Your task to perform on an android device: toggle javascript in the chrome app Image 0: 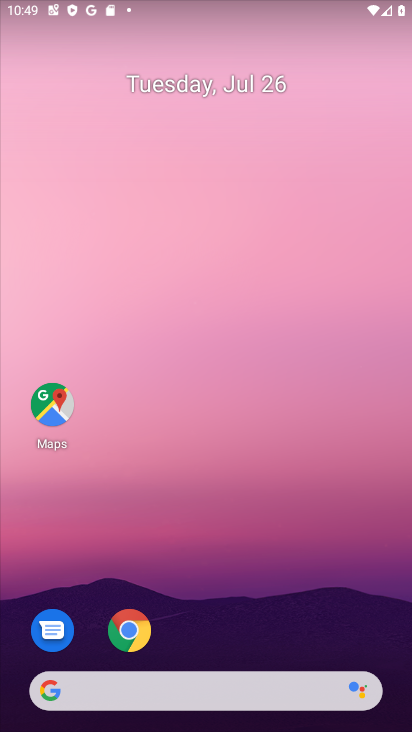
Step 0: click (128, 646)
Your task to perform on an android device: toggle javascript in the chrome app Image 1: 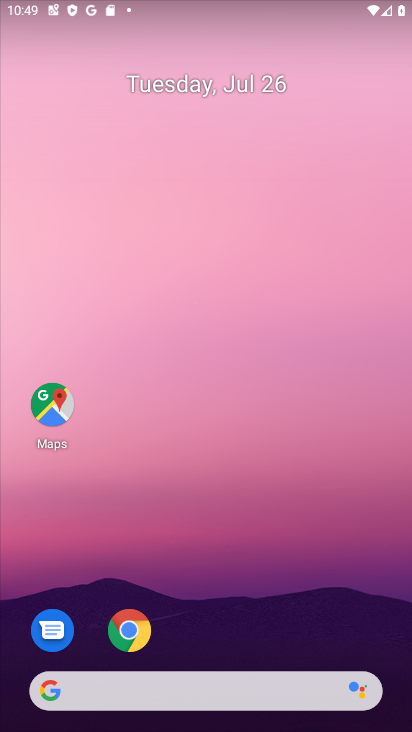
Step 1: click (128, 646)
Your task to perform on an android device: toggle javascript in the chrome app Image 2: 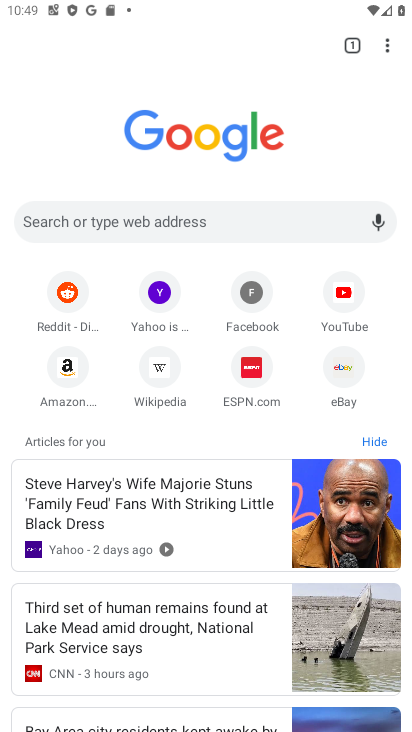
Step 2: click (388, 43)
Your task to perform on an android device: toggle javascript in the chrome app Image 3: 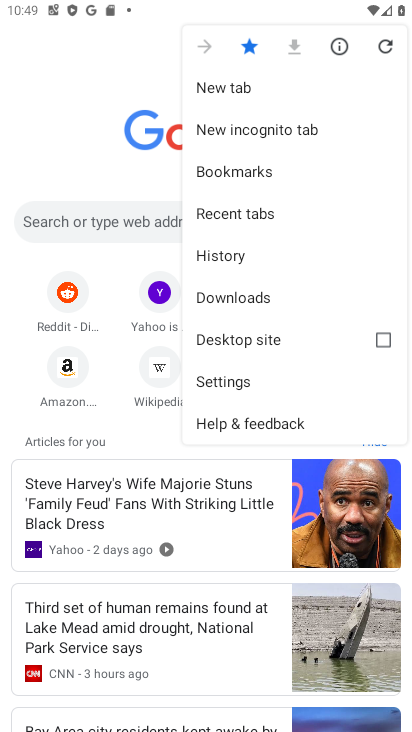
Step 3: click (230, 381)
Your task to perform on an android device: toggle javascript in the chrome app Image 4: 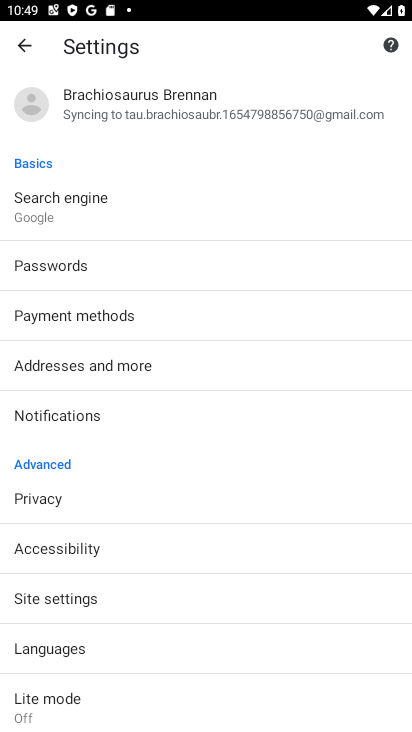
Step 4: click (99, 600)
Your task to perform on an android device: toggle javascript in the chrome app Image 5: 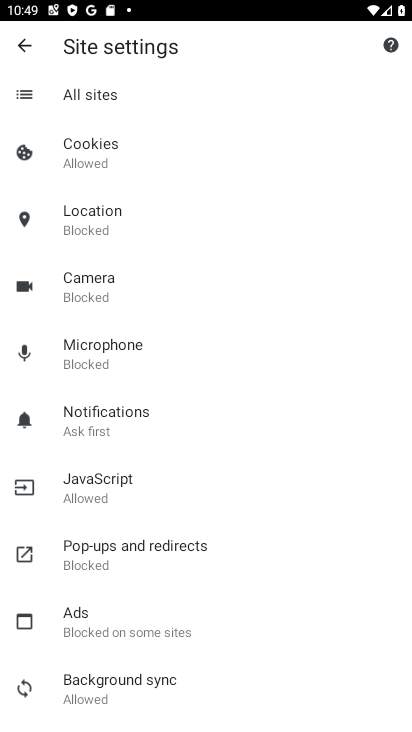
Step 5: click (153, 480)
Your task to perform on an android device: toggle javascript in the chrome app Image 6: 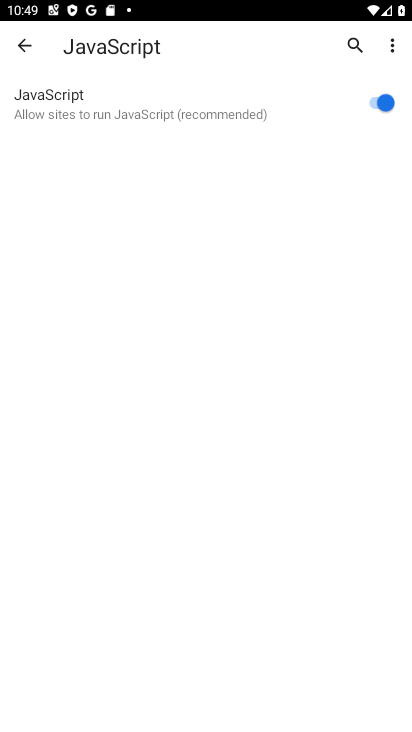
Step 6: click (389, 92)
Your task to perform on an android device: toggle javascript in the chrome app Image 7: 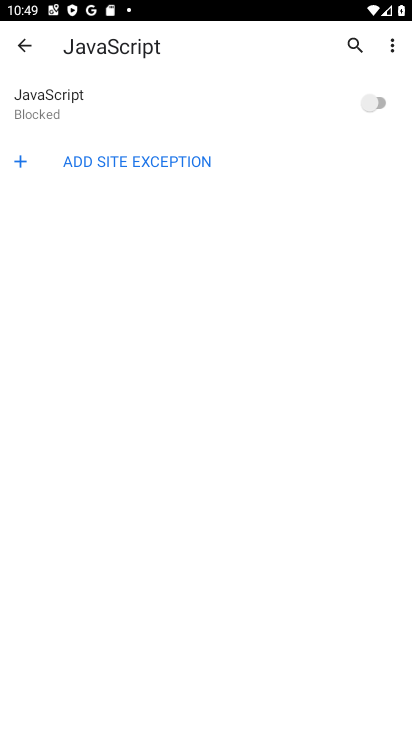
Step 7: task complete